Your task to perform on an android device: Go to ESPN.com Image 0: 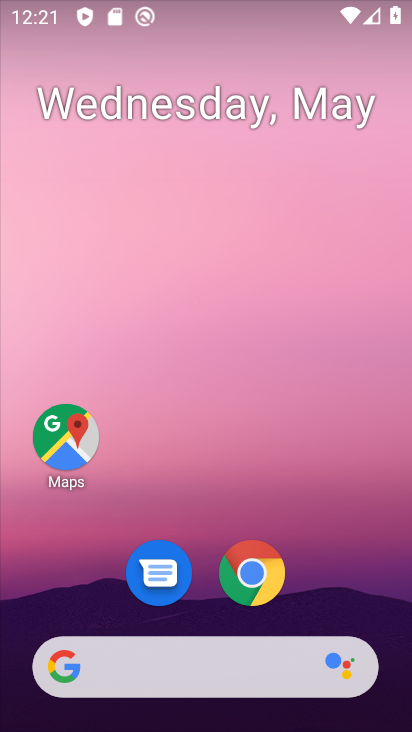
Step 0: press home button
Your task to perform on an android device: Go to ESPN.com Image 1: 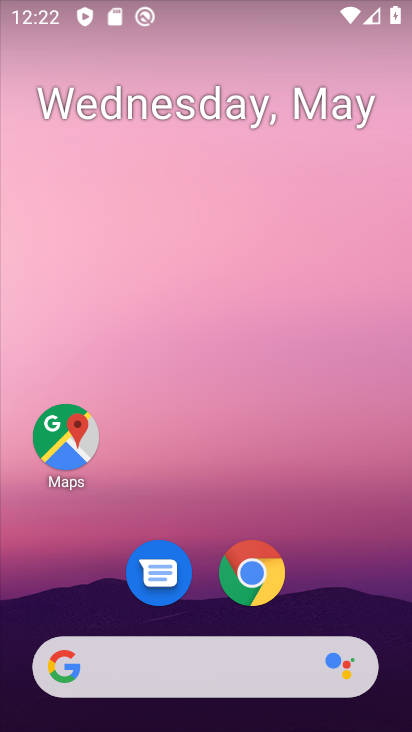
Step 1: click (272, 570)
Your task to perform on an android device: Go to ESPN.com Image 2: 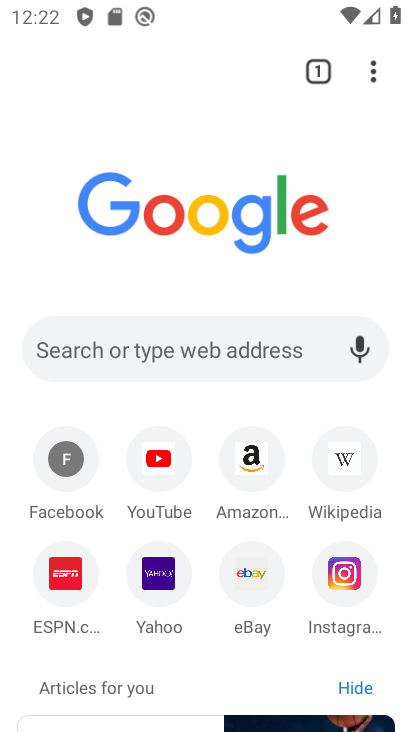
Step 2: click (289, 355)
Your task to perform on an android device: Go to ESPN.com Image 3: 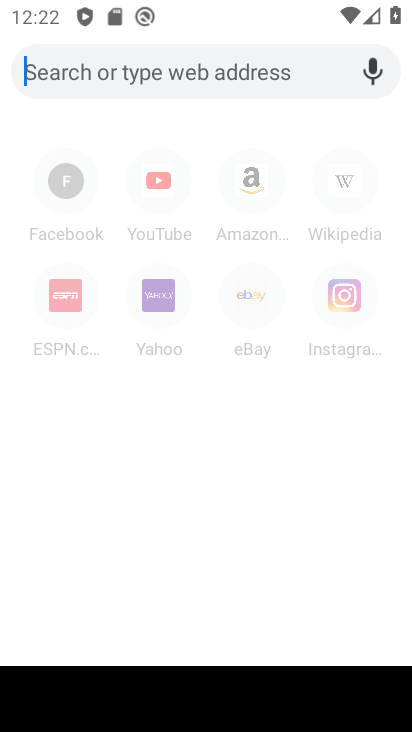
Step 3: type " ESPN.com"
Your task to perform on an android device: Go to ESPN.com Image 4: 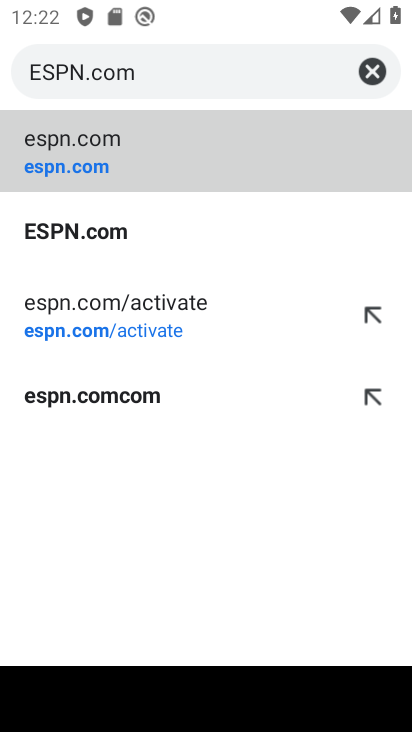
Step 4: click (129, 156)
Your task to perform on an android device: Go to ESPN.com Image 5: 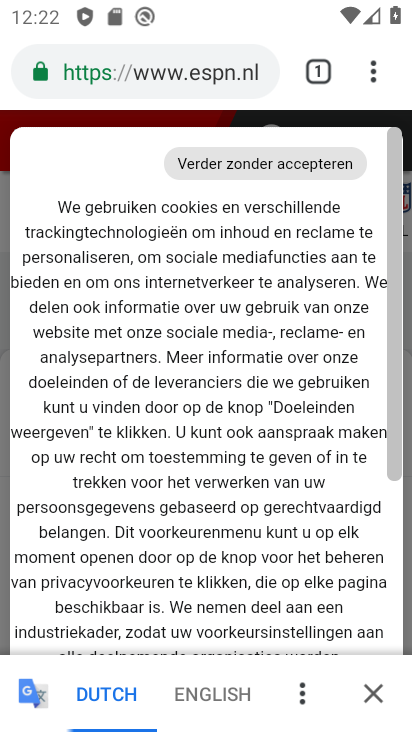
Step 5: task complete